Your task to perform on an android device: Open network settings Image 0: 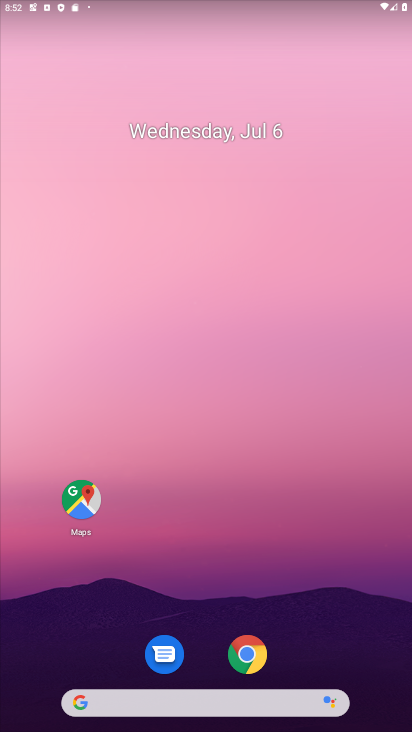
Step 0: drag from (180, 169) to (195, 582)
Your task to perform on an android device: Open network settings Image 1: 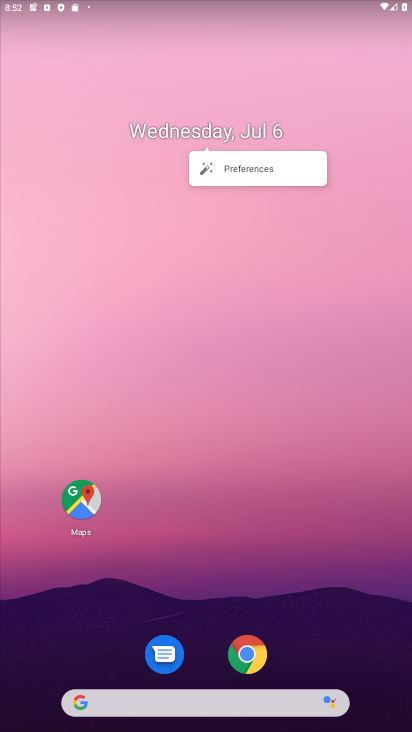
Step 1: drag from (276, 8) to (235, 426)
Your task to perform on an android device: Open network settings Image 2: 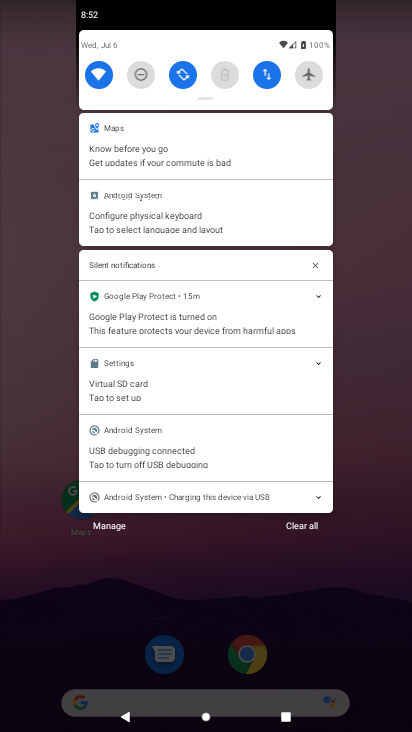
Step 2: click (270, 70)
Your task to perform on an android device: Open network settings Image 3: 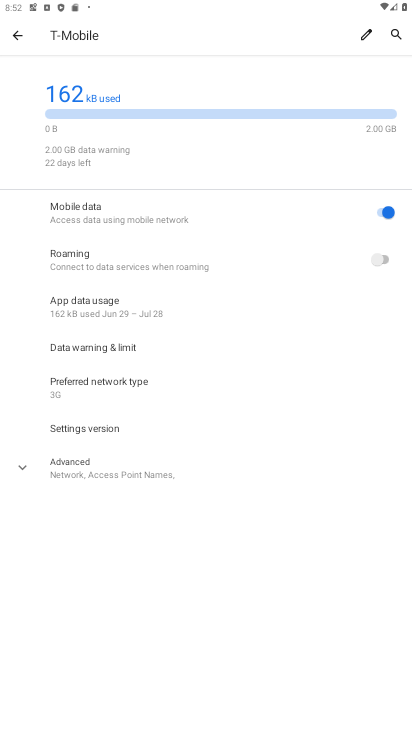
Step 3: task complete